Your task to perform on an android device: Go to Google Image 0: 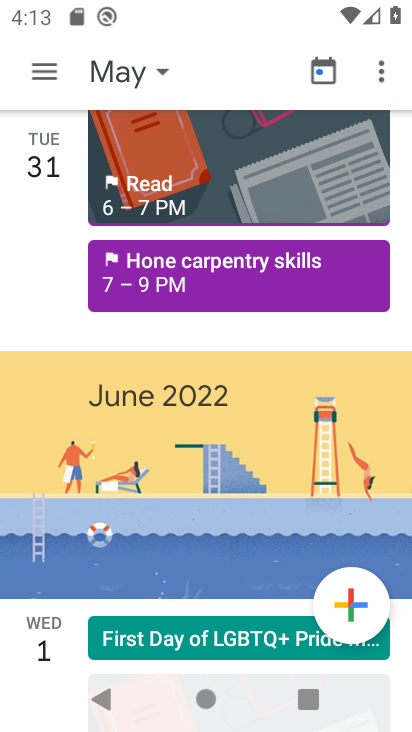
Step 0: press home button
Your task to perform on an android device: Go to Google Image 1: 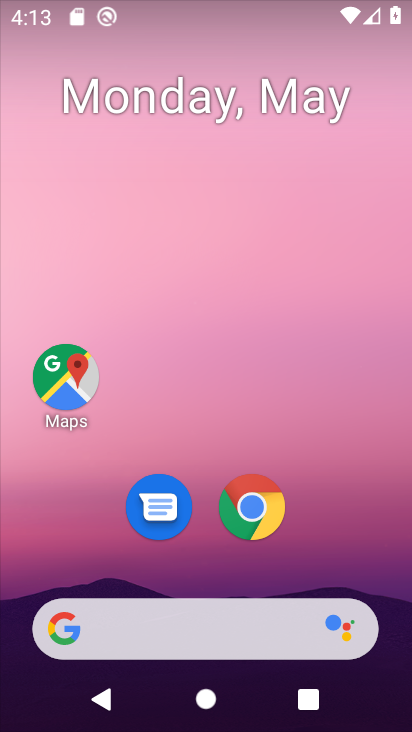
Step 1: drag from (312, 562) to (319, 50)
Your task to perform on an android device: Go to Google Image 2: 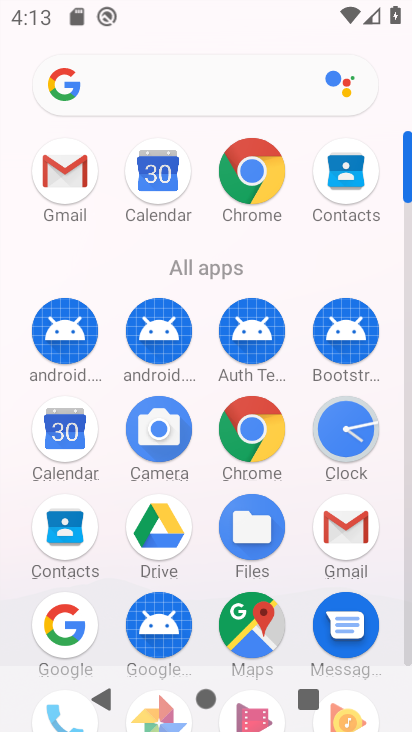
Step 2: click (407, 666)
Your task to perform on an android device: Go to Google Image 3: 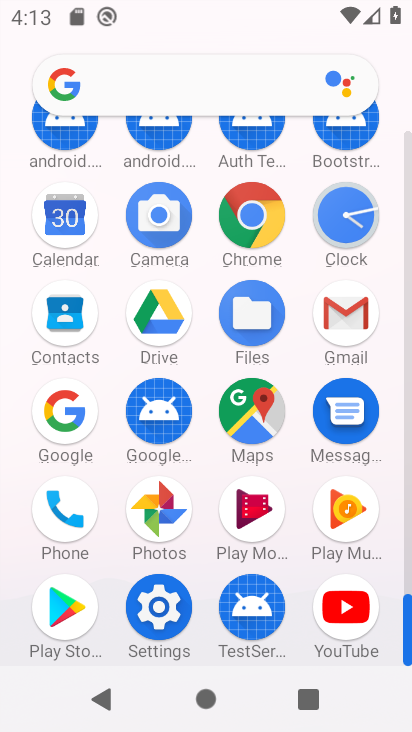
Step 3: click (44, 449)
Your task to perform on an android device: Go to Google Image 4: 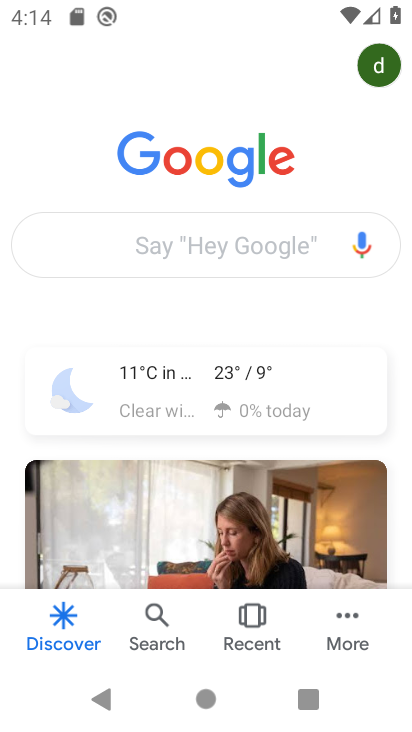
Step 4: task complete